Your task to perform on an android device: Open Youtube and go to the subscriptions tab Image 0: 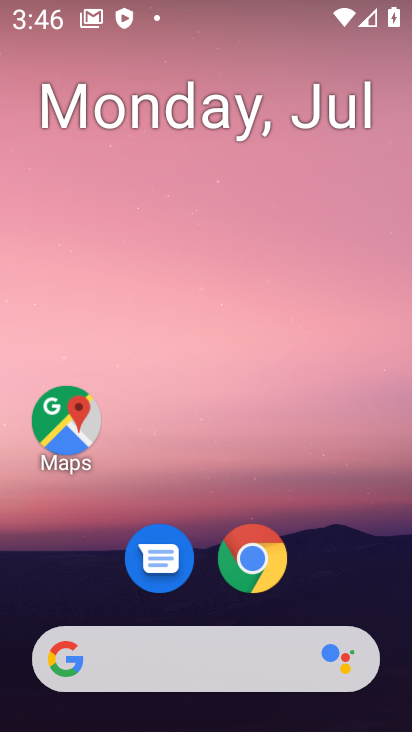
Step 0: drag from (91, 554) to (159, 99)
Your task to perform on an android device: Open Youtube and go to the subscriptions tab Image 1: 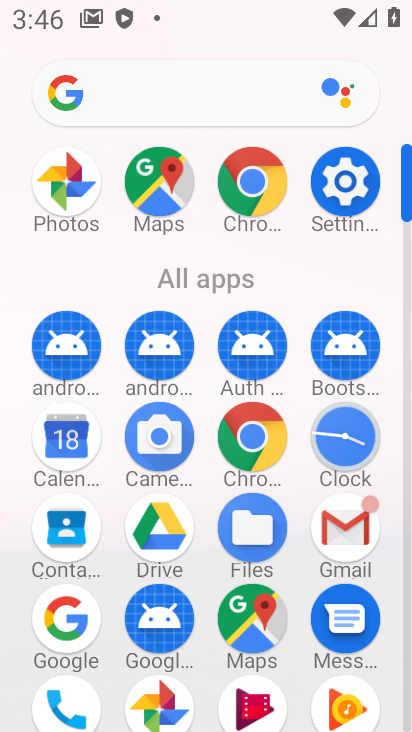
Step 1: drag from (172, 607) to (249, 48)
Your task to perform on an android device: Open Youtube and go to the subscriptions tab Image 2: 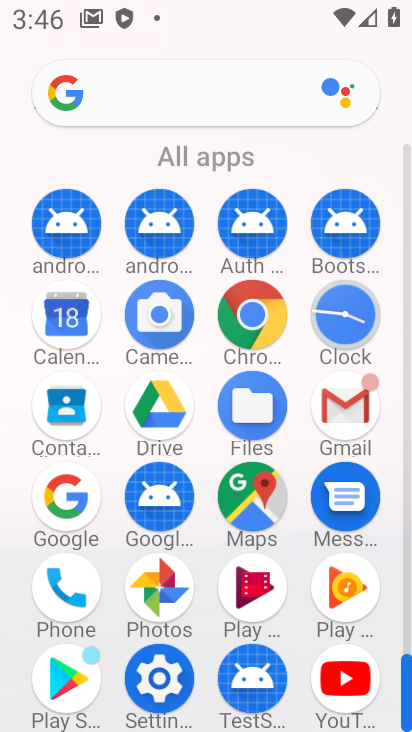
Step 2: click (337, 672)
Your task to perform on an android device: Open Youtube and go to the subscriptions tab Image 3: 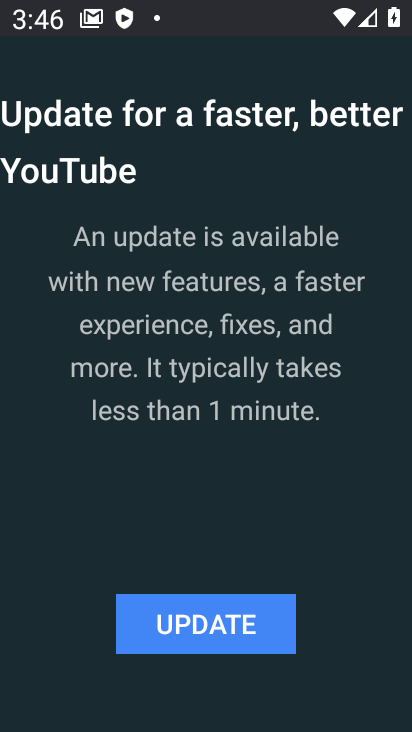
Step 3: click (199, 636)
Your task to perform on an android device: Open Youtube and go to the subscriptions tab Image 4: 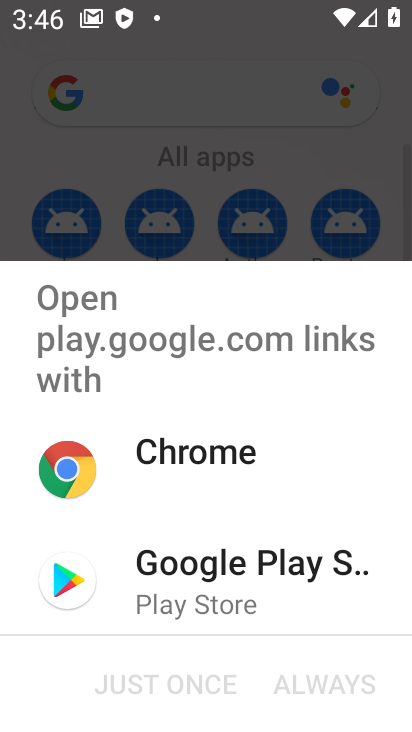
Step 4: click (207, 575)
Your task to perform on an android device: Open Youtube and go to the subscriptions tab Image 5: 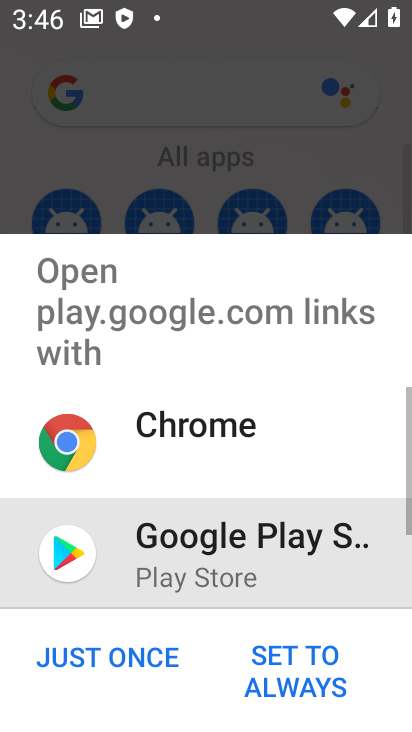
Step 5: click (143, 658)
Your task to perform on an android device: Open Youtube and go to the subscriptions tab Image 6: 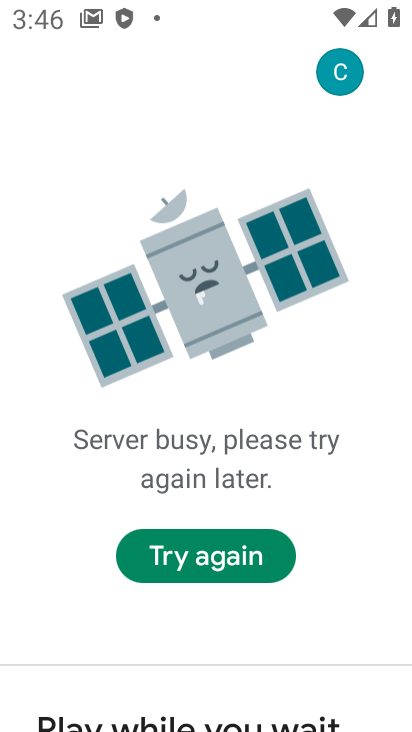
Step 6: click (233, 551)
Your task to perform on an android device: Open Youtube and go to the subscriptions tab Image 7: 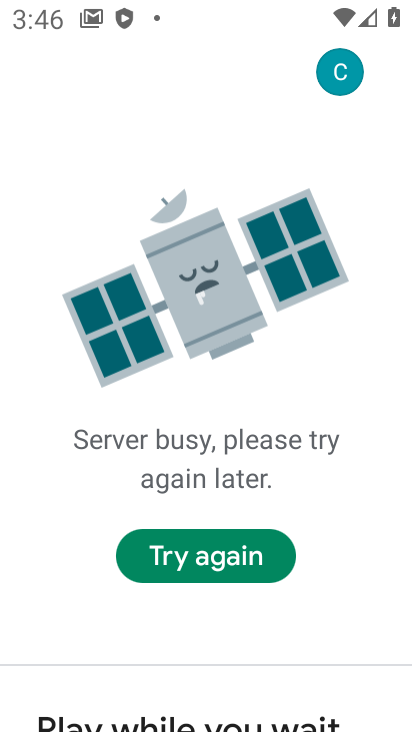
Step 7: task complete